Your task to perform on an android device: Go to notification settings Image 0: 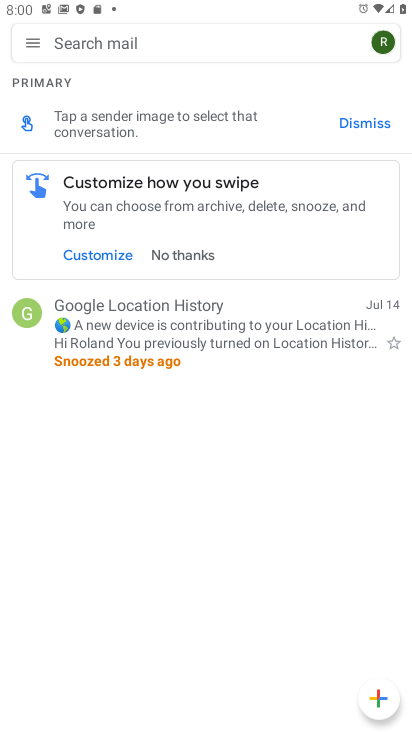
Step 0: press back button
Your task to perform on an android device: Go to notification settings Image 1: 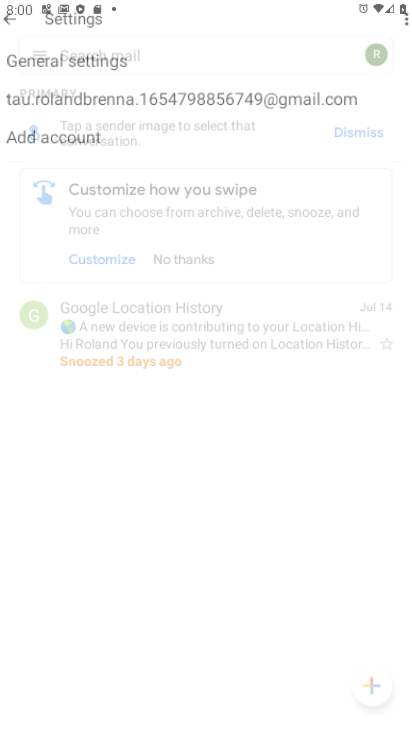
Step 1: press home button
Your task to perform on an android device: Go to notification settings Image 2: 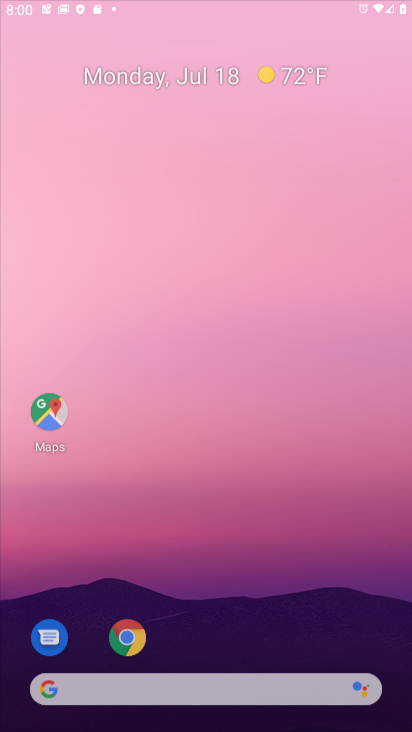
Step 2: drag from (388, 666) to (246, 45)
Your task to perform on an android device: Go to notification settings Image 3: 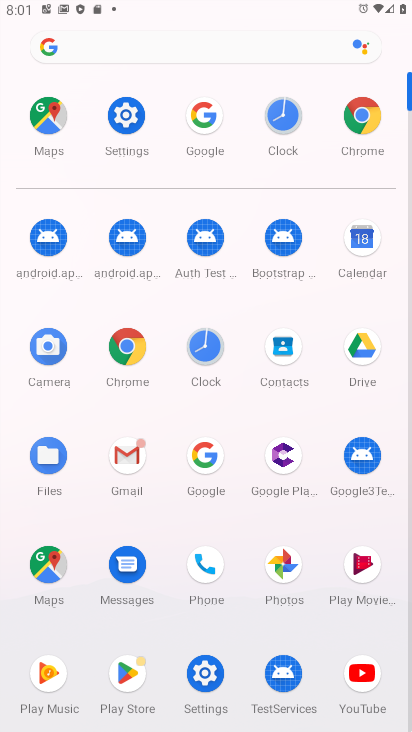
Step 3: click (211, 677)
Your task to perform on an android device: Go to notification settings Image 4: 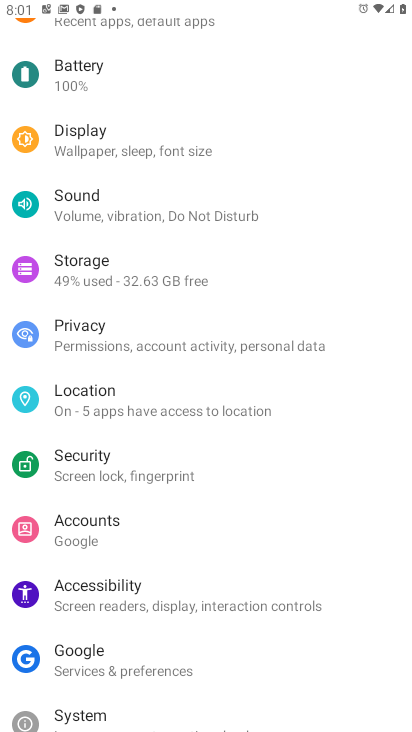
Step 4: drag from (166, 162) to (221, 620)
Your task to perform on an android device: Go to notification settings Image 5: 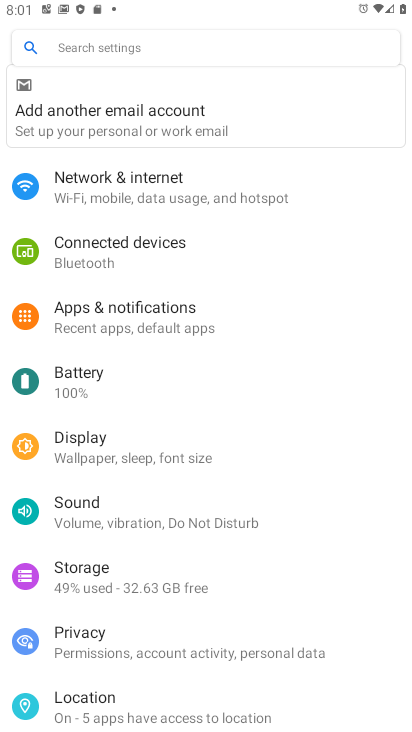
Step 5: click (151, 334)
Your task to perform on an android device: Go to notification settings Image 6: 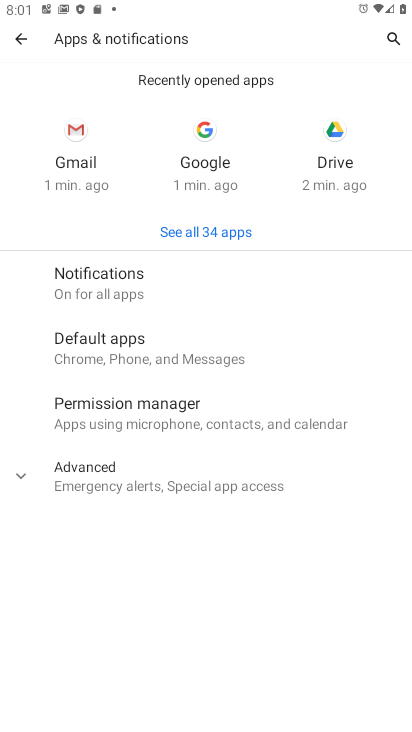
Step 6: click (87, 278)
Your task to perform on an android device: Go to notification settings Image 7: 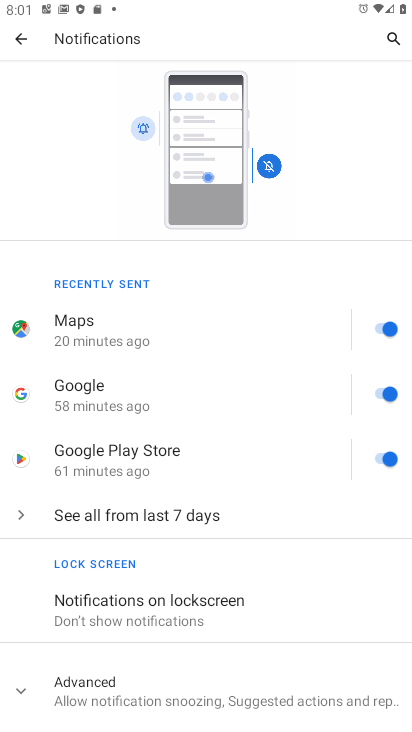
Step 7: task complete